Your task to perform on an android device: turn on improve location accuracy Image 0: 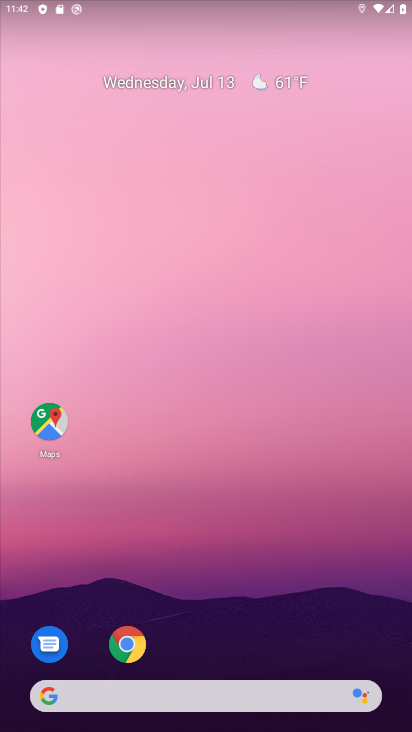
Step 0: drag from (251, 595) to (233, 132)
Your task to perform on an android device: turn on improve location accuracy Image 1: 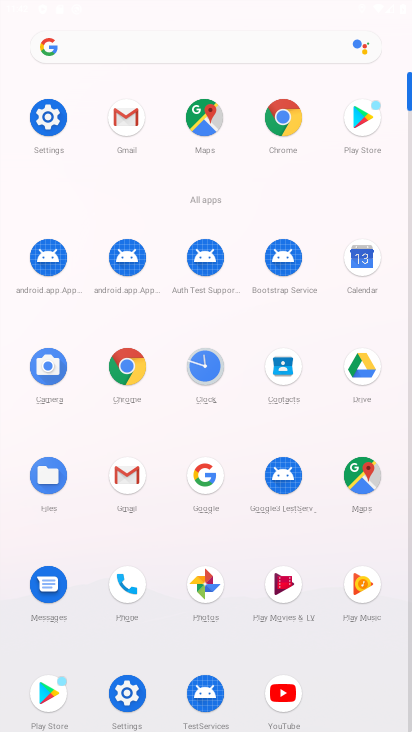
Step 1: click (47, 110)
Your task to perform on an android device: turn on improve location accuracy Image 2: 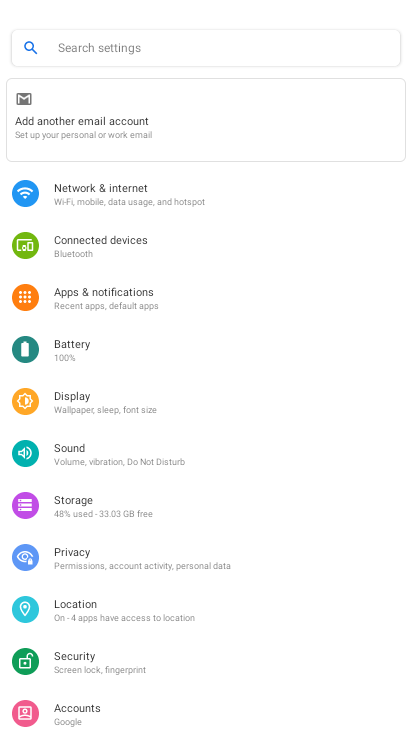
Step 2: click (102, 608)
Your task to perform on an android device: turn on improve location accuracy Image 3: 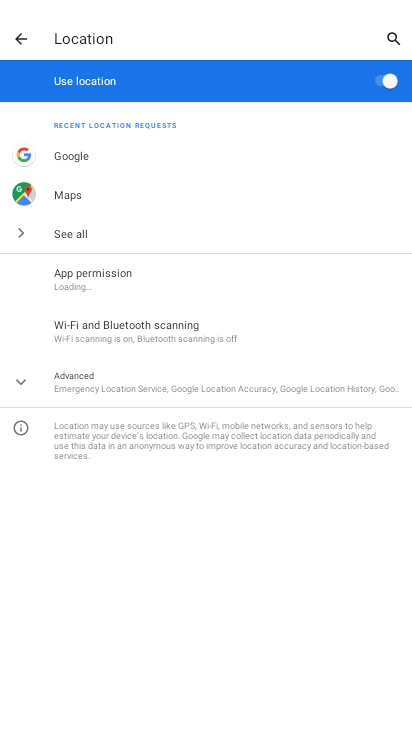
Step 3: click (91, 381)
Your task to perform on an android device: turn on improve location accuracy Image 4: 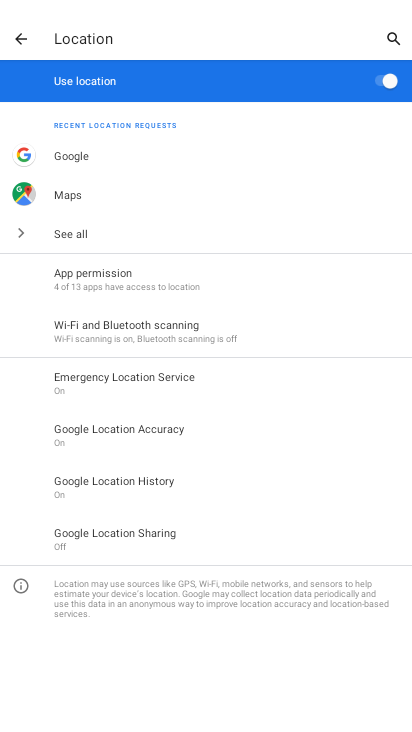
Step 4: click (106, 434)
Your task to perform on an android device: turn on improve location accuracy Image 5: 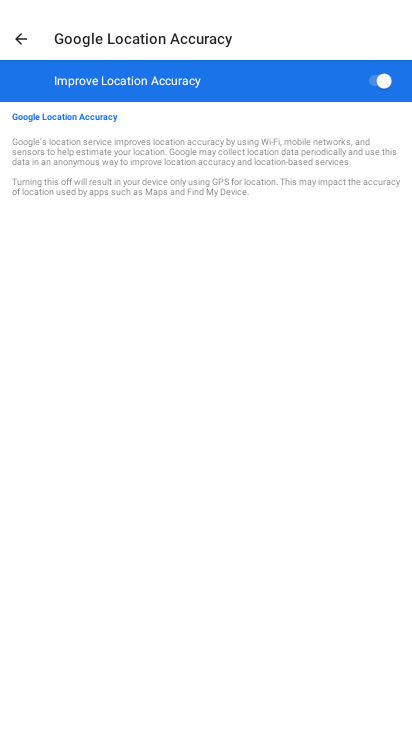
Step 5: task complete